Your task to perform on an android device: Go to privacy settings Image 0: 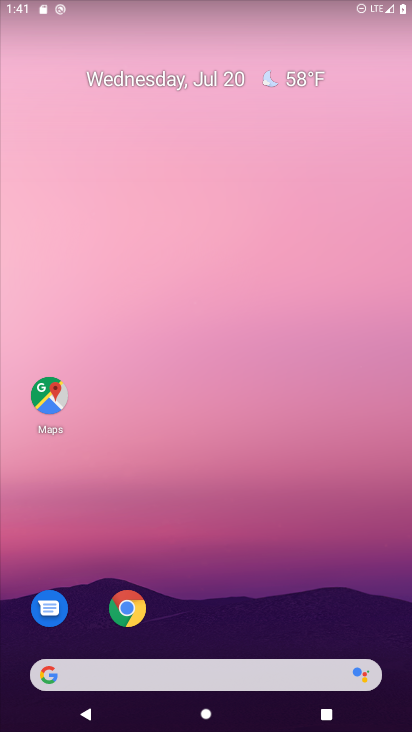
Step 0: drag from (253, 727) to (234, 195)
Your task to perform on an android device: Go to privacy settings Image 1: 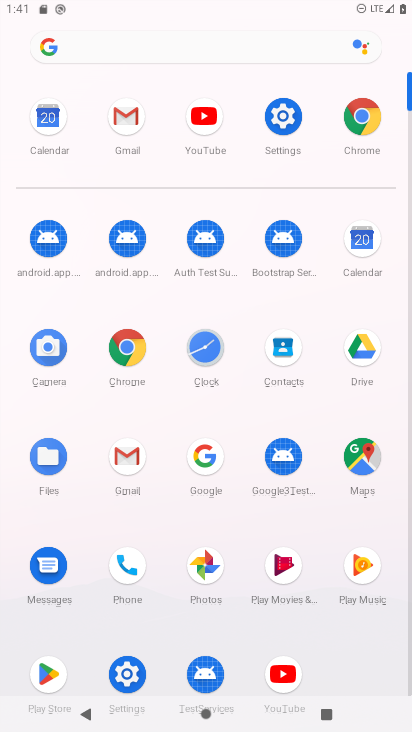
Step 1: click (287, 115)
Your task to perform on an android device: Go to privacy settings Image 2: 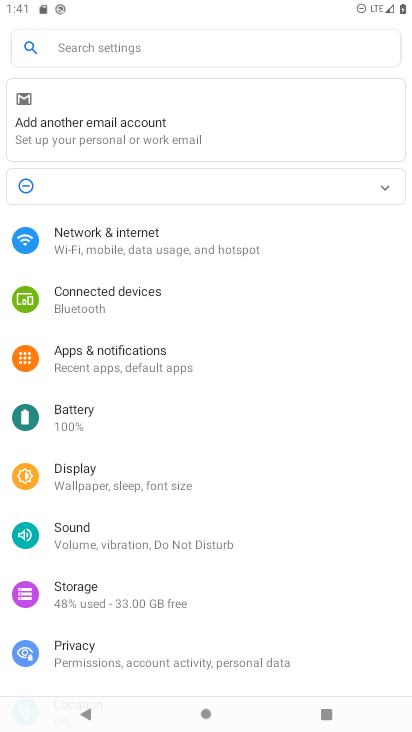
Step 2: click (88, 651)
Your task to perform on an android device: Go to privacy settings Image 3: 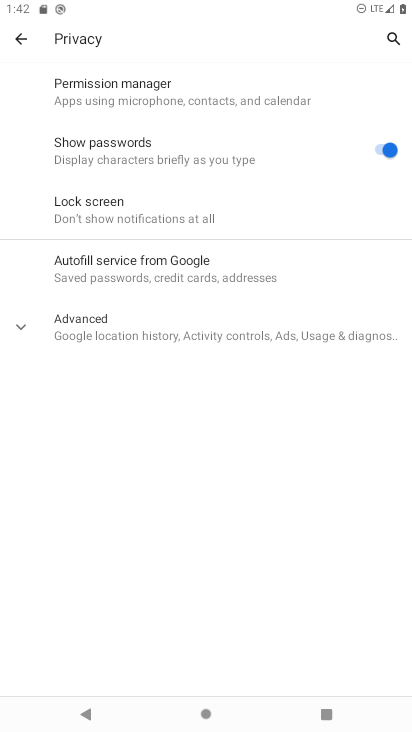
Step 3: task complete